Your task to perform on an android device: turn on javascript in the chrome app Image 0: 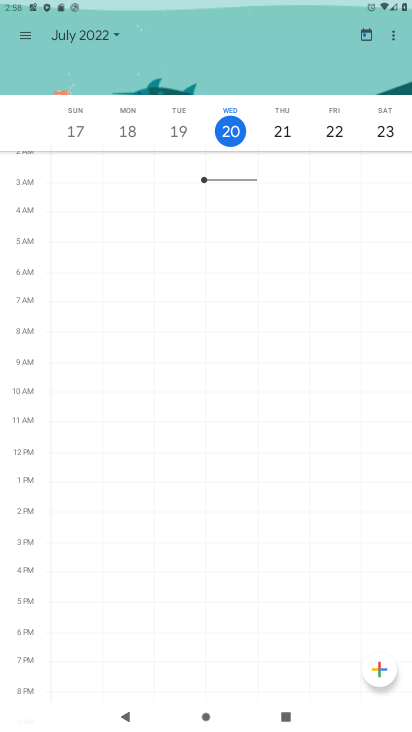
Step 0: press home button
Your task to perform on an android device: turn on javascript in the chrome app Image 1: 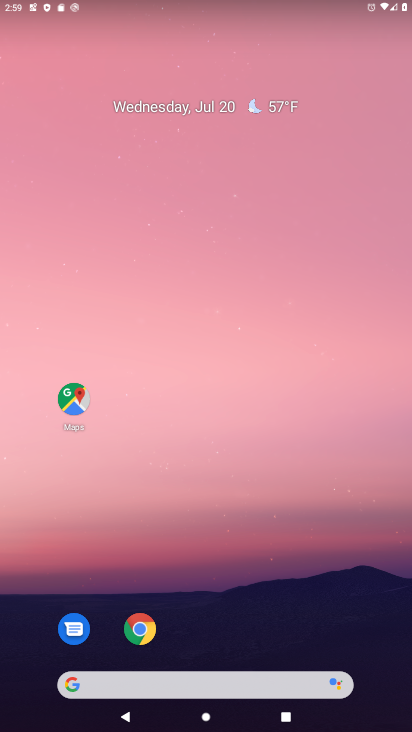
Step 1: click (146, 629)
Your task to perform on an android device: turn on javascript in the chrome app Image 2: 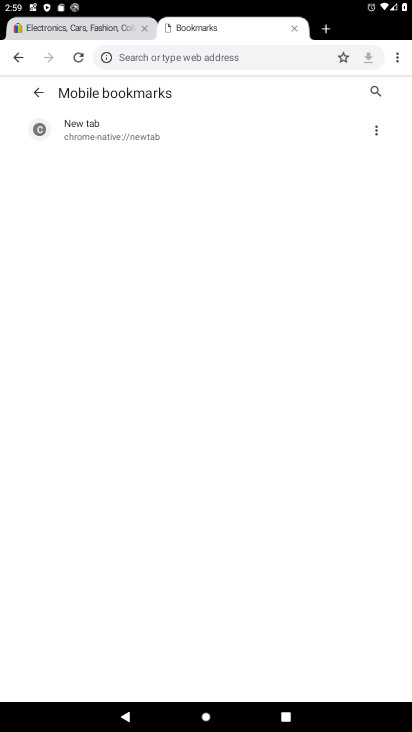
Step 2: click (396, 60)
Your task to perform on an android device: turn on javascript in the chrome app Image 3: 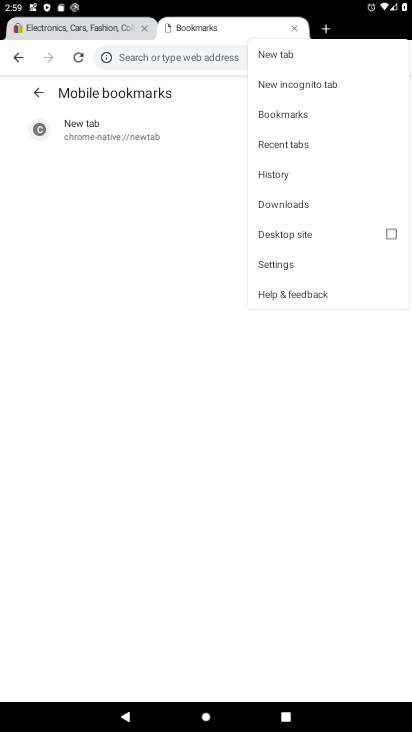
Step 3: click (285, 266)
Your task to perform on an android device: turn on javascript in the chrome app Image 4: 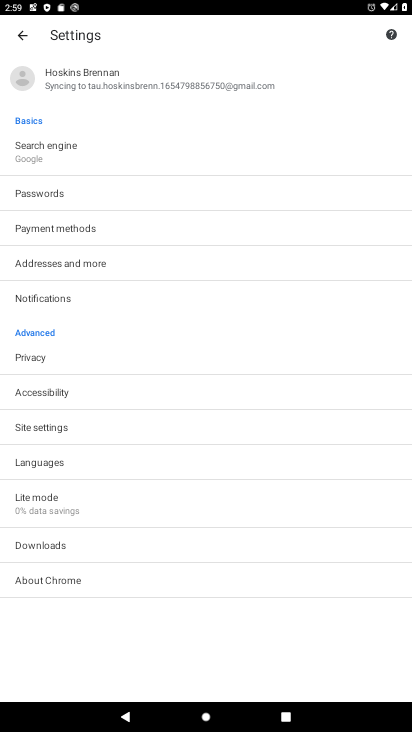
Step 4: click (39, 422)
Your task to perform on an android device: turn on javascript in the chrome app Image 5: 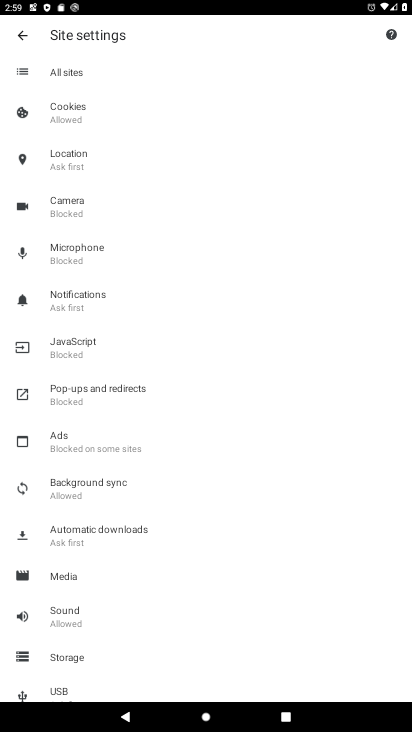
Step 5: click (69, 343)
Your task to perform on an android device: turn on javascript in the chrome app Image 6: 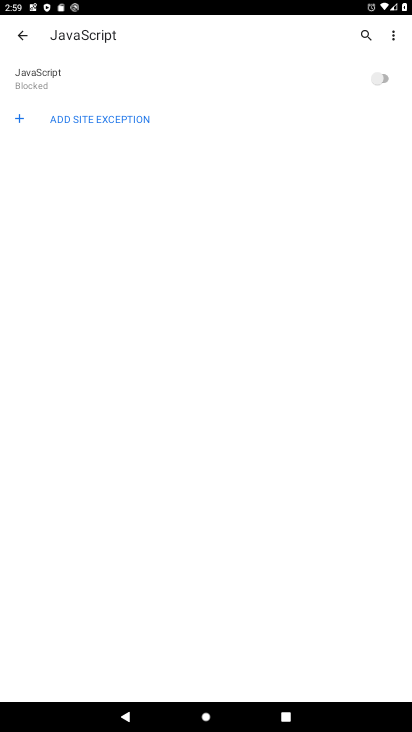
Step 6: click (385, 77)
Your task to perform on an android device: turn on javascript in the chrome app Image 7: 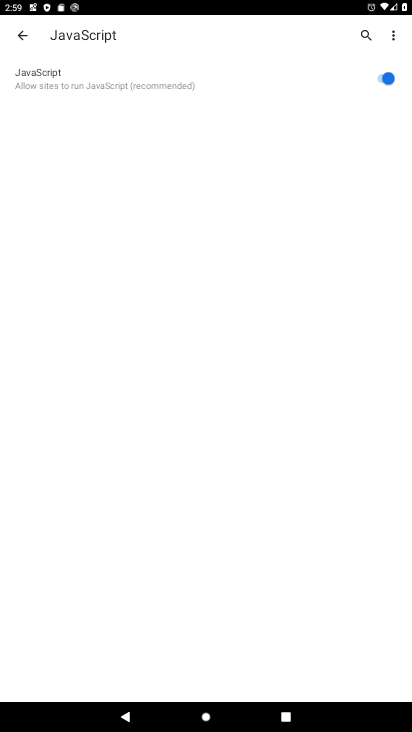
Step 7: task complete